Your task to perform on an android device: check the backup settings in the google photos Image 0: 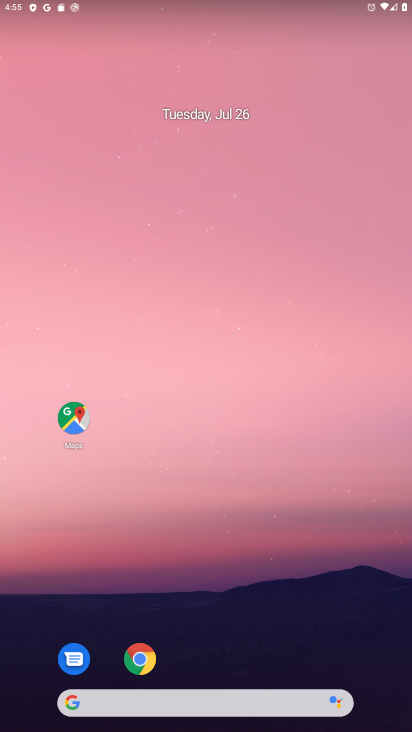
Step 0: drag from (227, 667) to (302, 149)
Your task to perform on an android device: check the backup settings in the google photos Image 1: 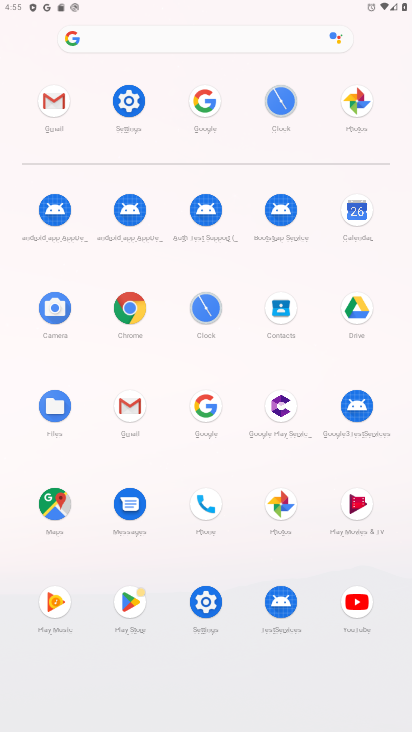
Step 1: click (278, 501)
Your task to perform on an android device: check the backup settings in the google photos Image 2: 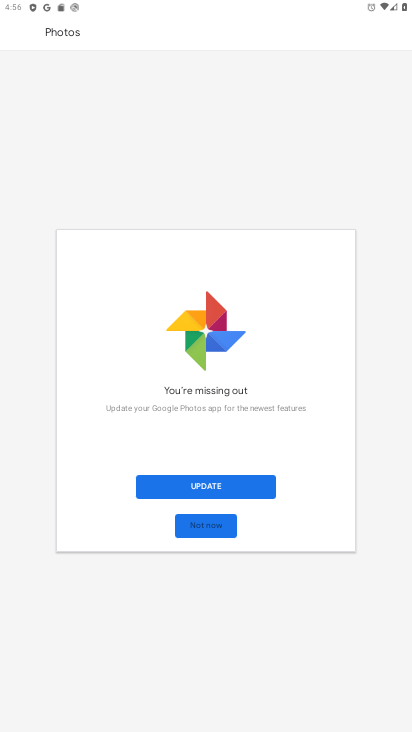
Step 2: click (206, 480)
Your task to perform on an android device: check the backup settings in the google photos Image 3: 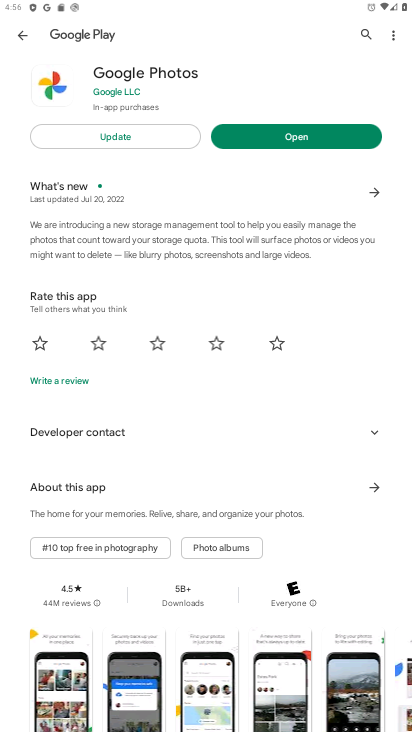
Step 3: click (106, 136)
Your task to perform on an android device: check the backup settings in the google photos Image 4: 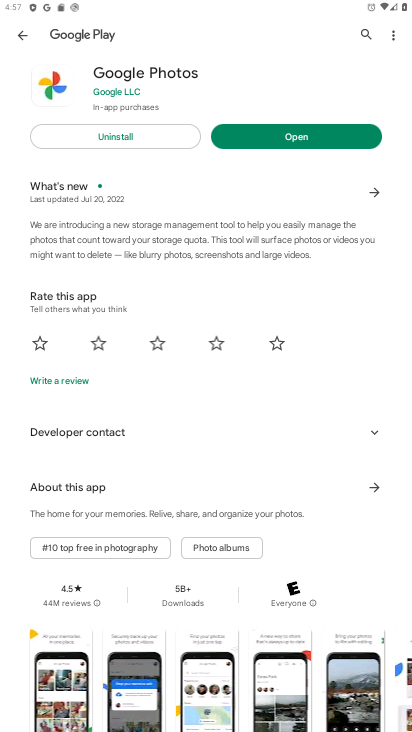
Step 4: click (290, 135)
Your task to perform on an android device: check the backup settings in the google photos Image 5: 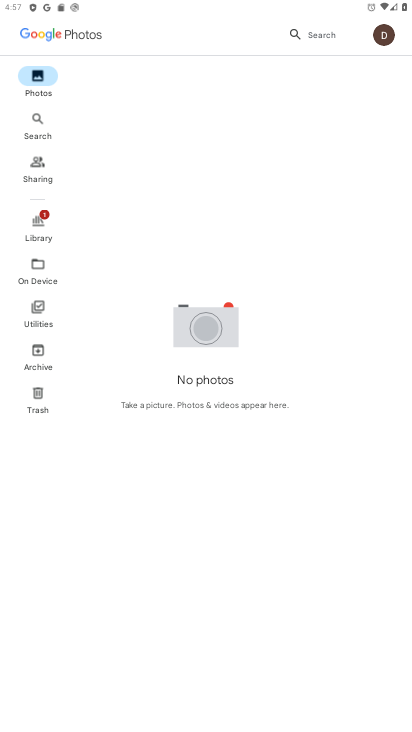
Step 5: click (380, 35)
Your task to perform on an android device: check the backup settings in the google photos Image 6: 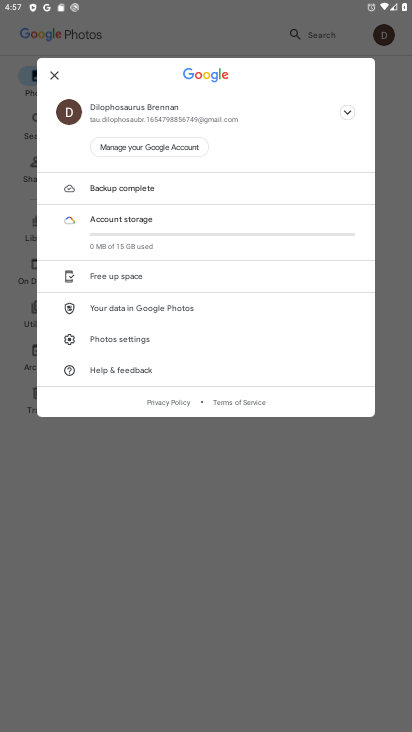
Step 6: click (153, 334)
Your task to perform on an android device: check the backup settings in the google photos Image 7: 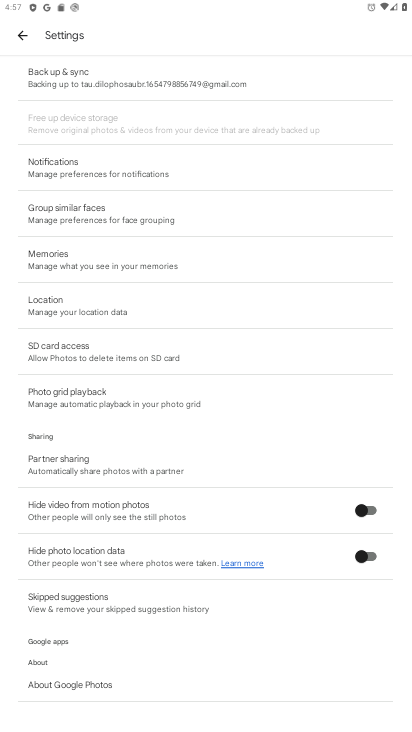
Step 7: click (123, 83)
Your task to perform on an android device: check the backup settings in the google photos Image 8: 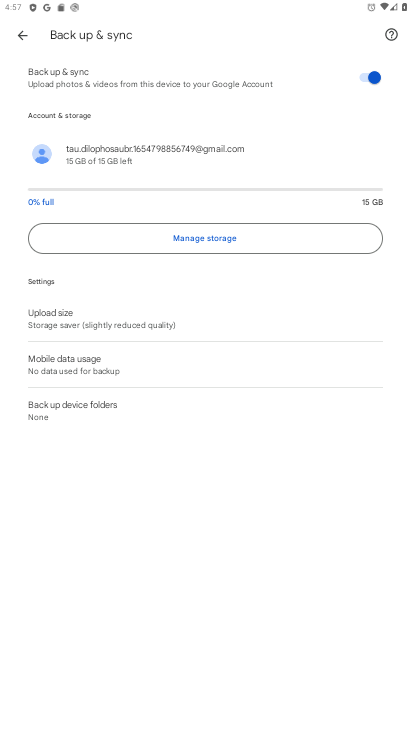
Step 8: task complete